Your task to perform on an android device: Go to calendar. Show me events next week Image 0: 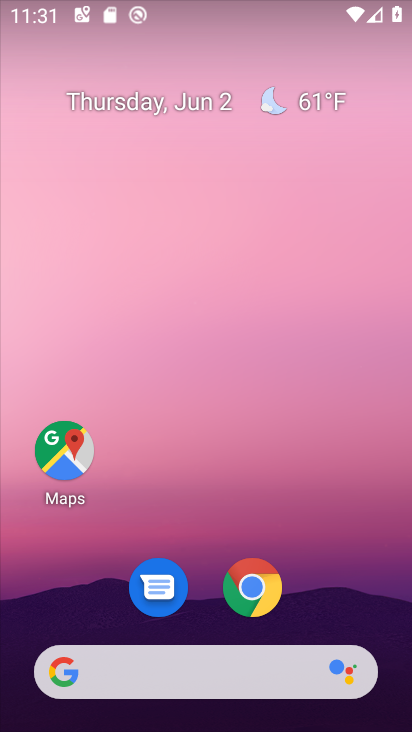
Step 0: drag from (240, 490) to (277, 18)
Your task to perform on an android device: Go to calendar. Show me events next week Image 1: 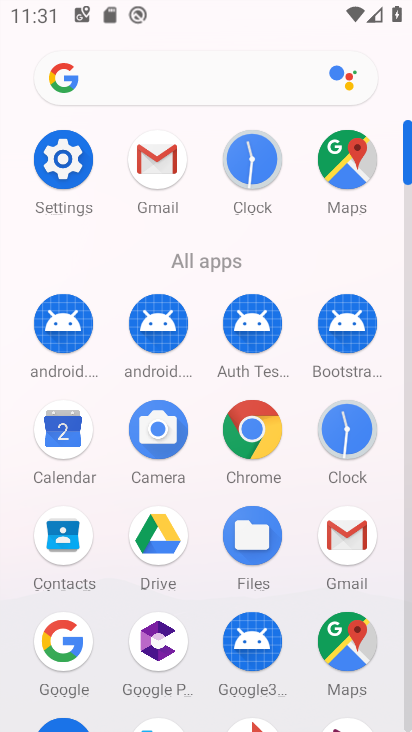
Step 1: click (63, 423)
Your task to perform on an android device: Go to calendar. Show me events next week Image 2: 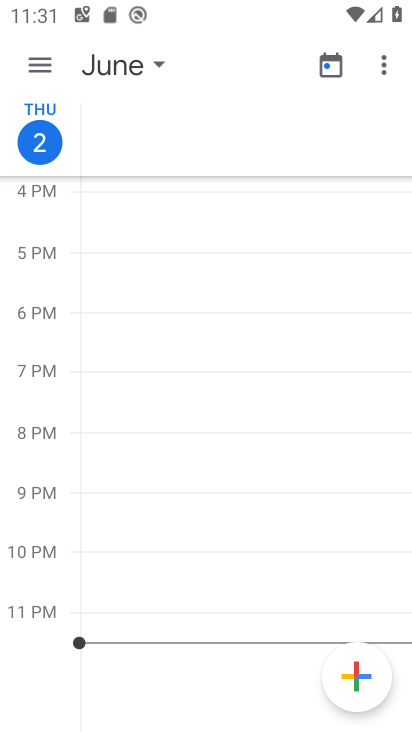
Step 2: click (47, 64)
Your task to perform on an android device: Go to calendar. Show me events next week Image 3: 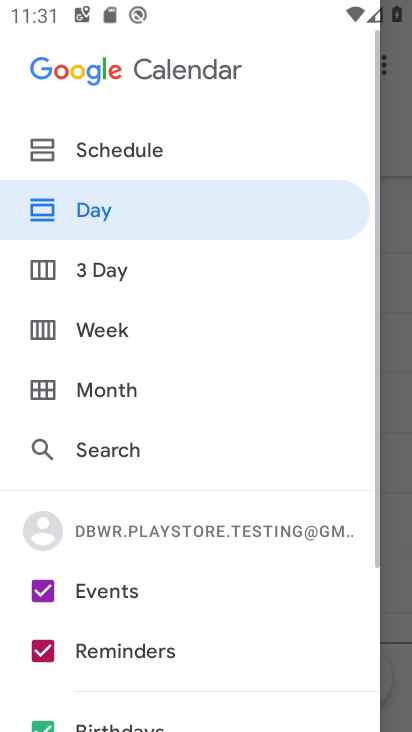
Step 3: click (37, 326)
Your task to perform on an android device: Go to calendar. Show me events next week Image 4: 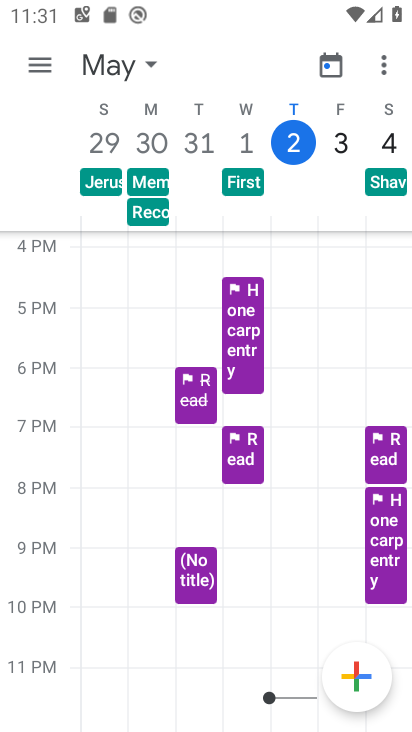
Step 4: task complete